Your task to perform on an android device: Check the weather Image 0: 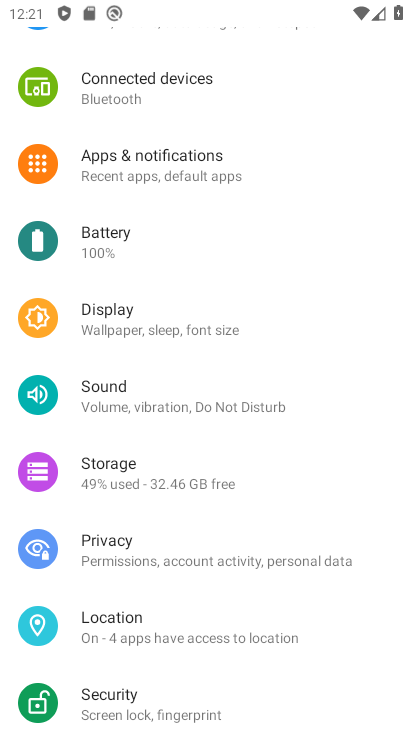
Step 0: press home button
Your task to perform on an android device: Check the weather Image 1: 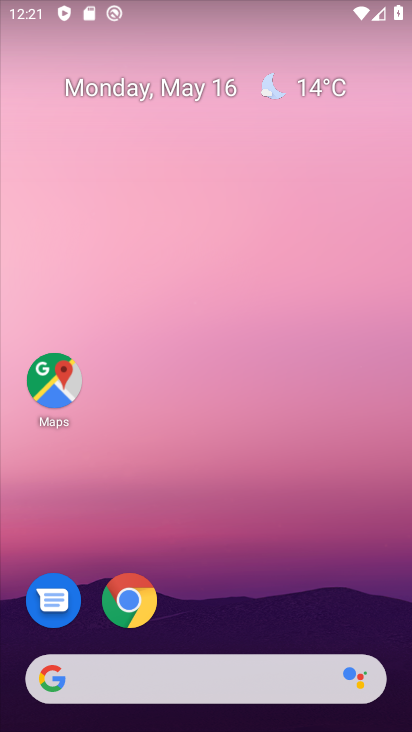
Step 1: click (148, 598)
Your task to perform on an android device: Check the weather Image 2: 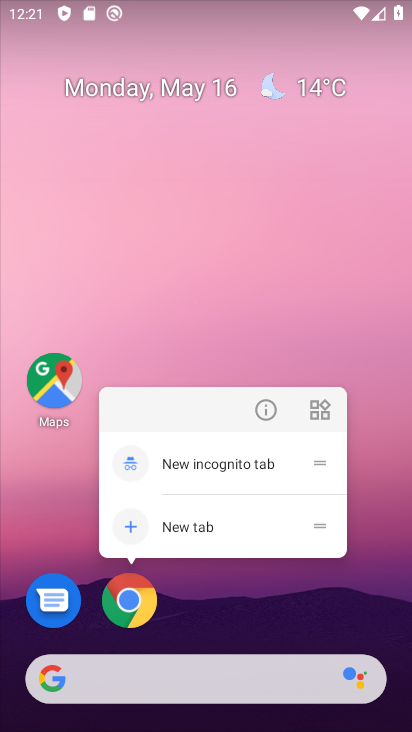
Step 2: click (110, 603)
Your task to perform on an android device: Check the weather Image 3: 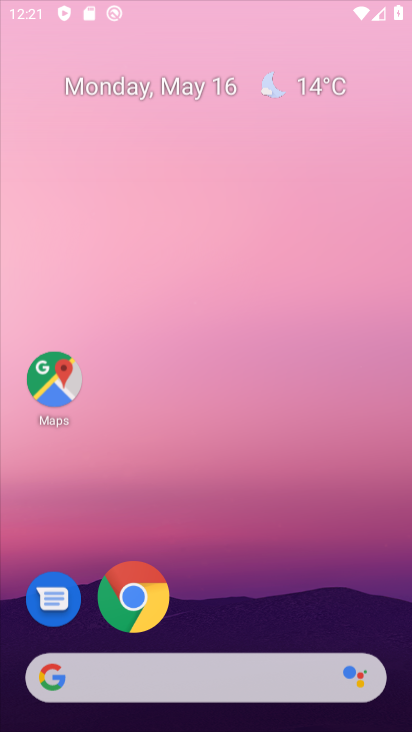
Step 3: click (130, 598)
Your task to perform on an android device: Check the weather Image 4: 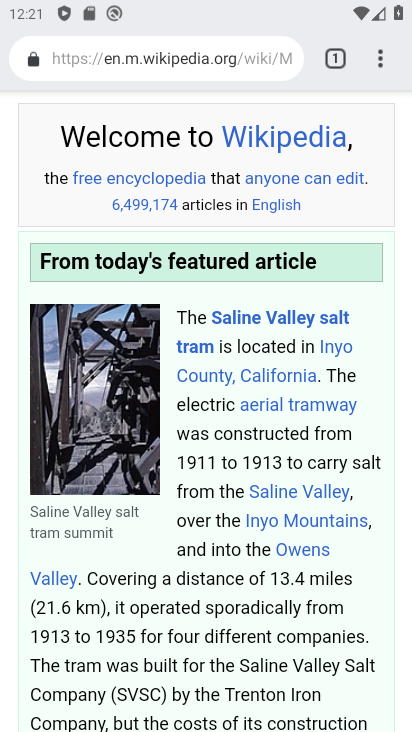
Step 4: click (280, 54)
Your task to perform on an android device: Check the weather Image 5: 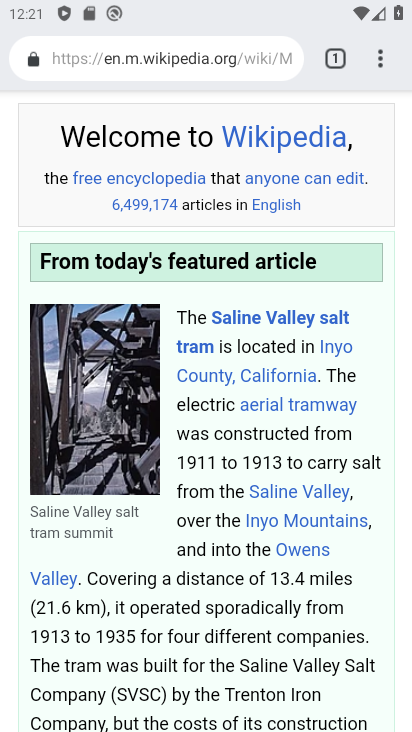
Step 5: click (278, 54)
Your task to perform on an android device: Check the weather Image 6: 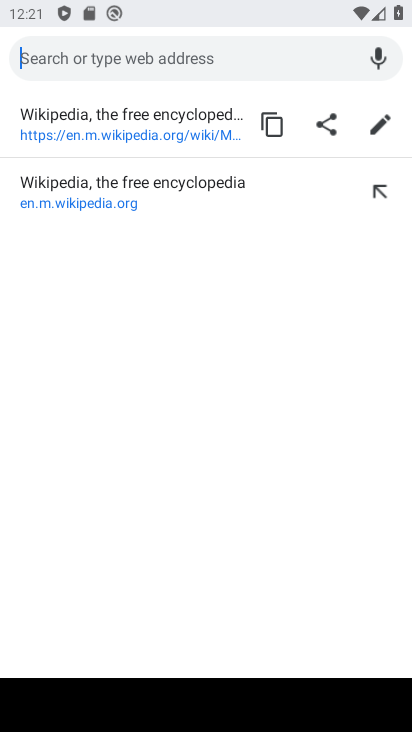
Step 6: click (131, 63)
Your task to perform on an android device: Check the weather Image 7: 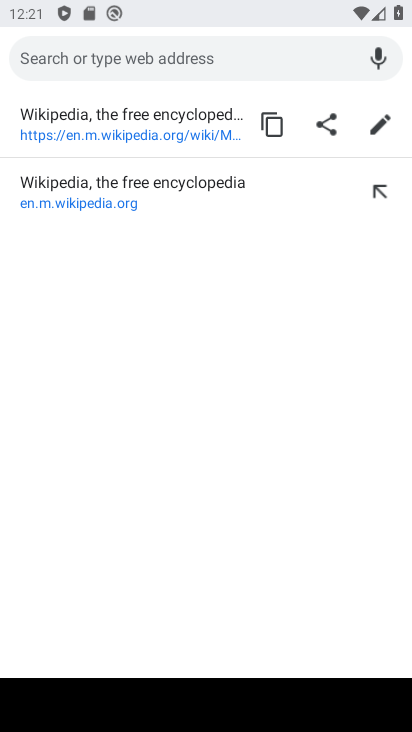
Step 7: type "Check the weather"
Your task to perform on an android device: Check the weather Image 8: 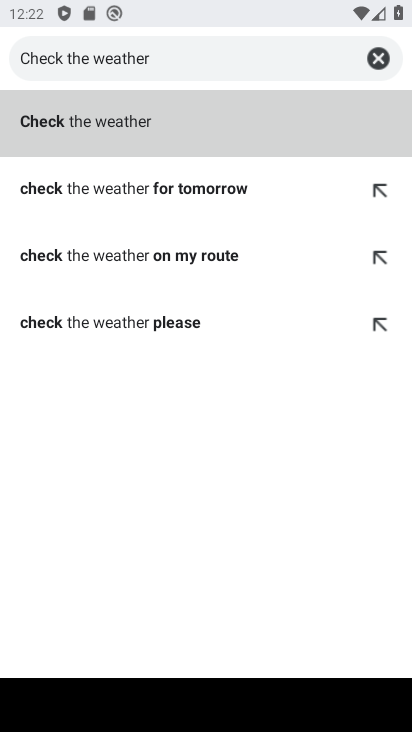
Step 8: click (117, 125)
Your task to perform on an android device: Check the weather Image 9: 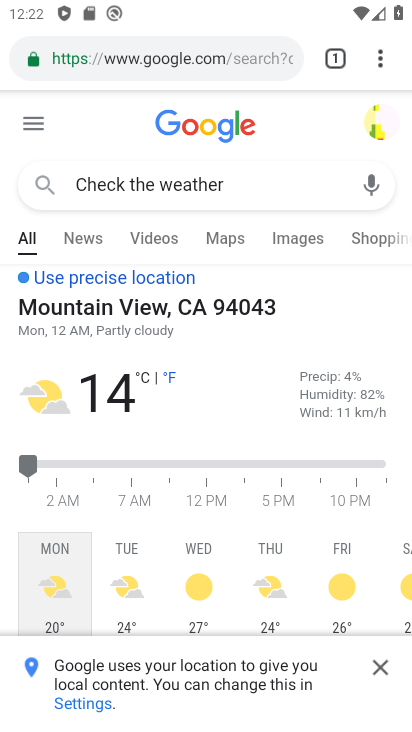
Step 9: task complete